Your task to perform on an android device: turn off wifi Image 0: 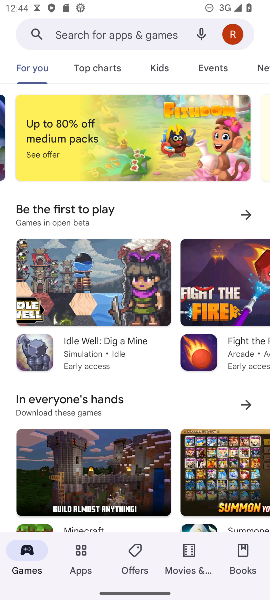
Step 0: press back button
Your task to perform on an android device: turn off wifi Image 1: 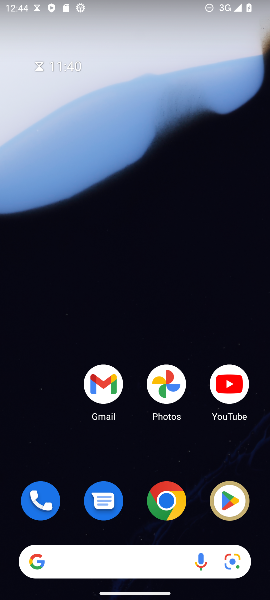
Step 1: press home button
Your task to perform on an android device: turn off wifi Image 2: 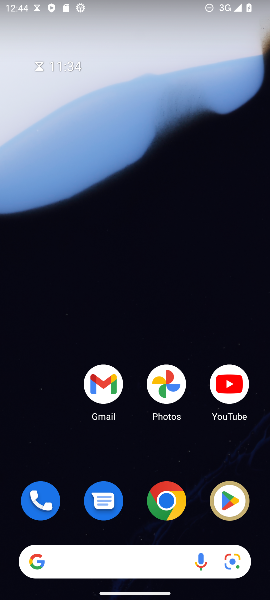
Step 2: drag from (122, 192) to (178, 45)
Your task to perform on an android device: turn off wifi Image 3: 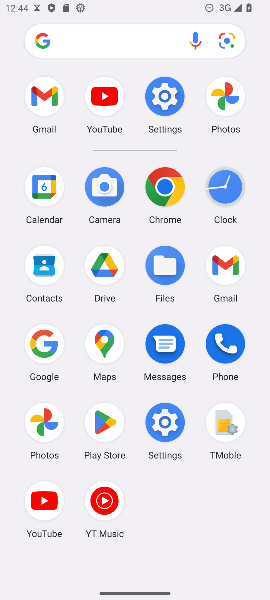
Step 3: click (162, 108)
Your task to perform on an android device: turn off wifi Image 4: 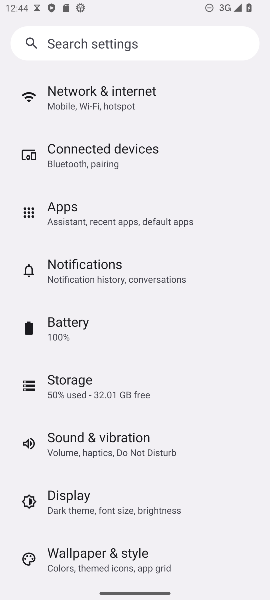
Step 4: click (121, 112)
Your task to perform on an android device: turn off wifi Image 5: 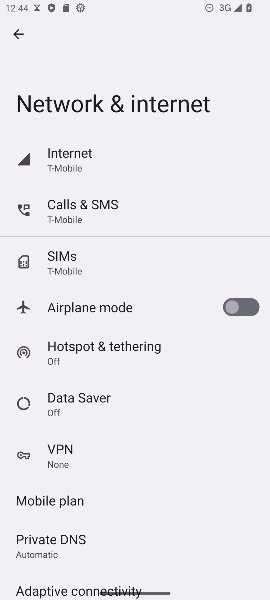
Step 5: click (86, 157)
Your task to perform on an android device: turn off wifi Image 6: 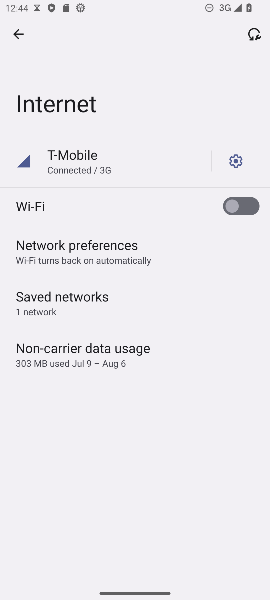
Step 6: task complete